Your task to perform on an android device: Open calendar and show me the first week of next month Image 0: 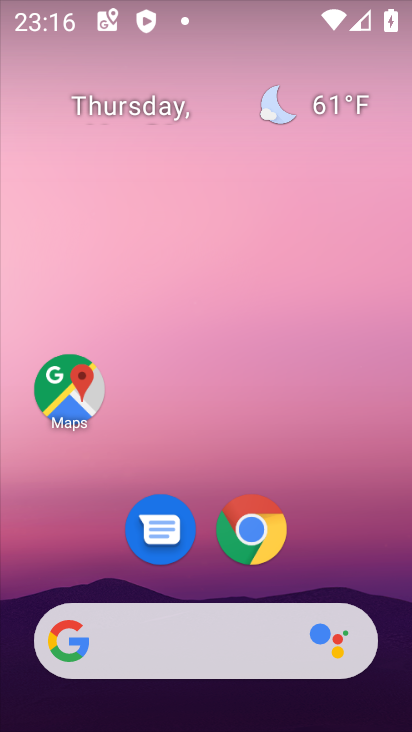
Step 0: drag from (388, 538) to (272, 47)
Your task to perform on an android device: Open calendar and show me the first week of next month Image 1: 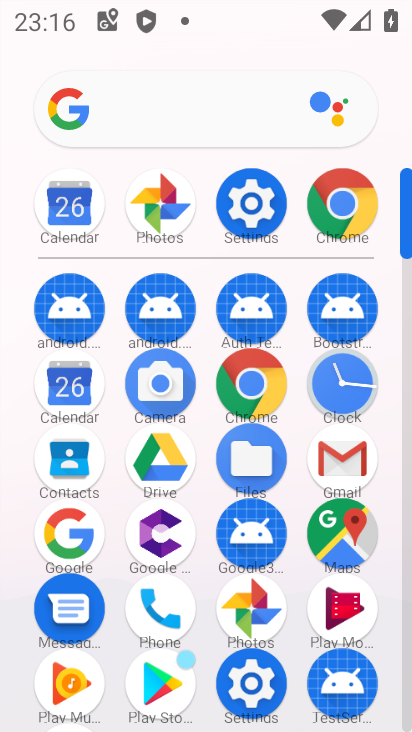
Step 1: click (72, 234)
Your task to perform on an android device: Open calendar and show me the first week of next month Image 2: 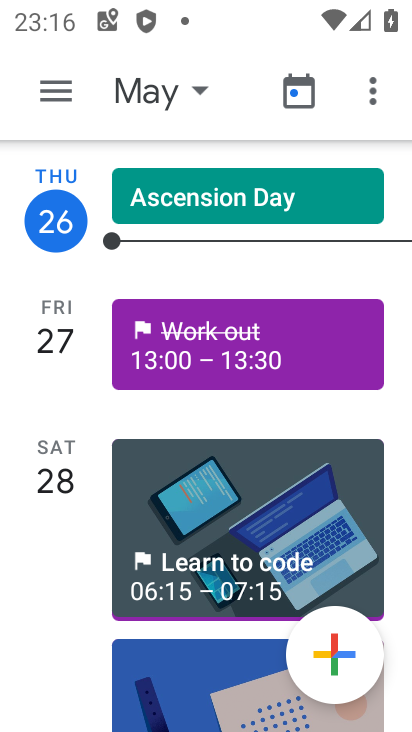
Step 2: click (196, 96)
Your task to perform on an android device: Open calendar and show me the first week of next month Image 3: 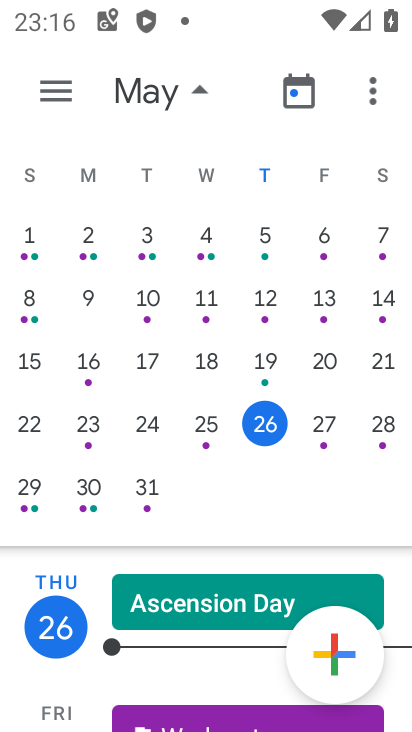
Step 3: task complete